Your task to perform on an android device: change your default location settings in chrome Image 0: 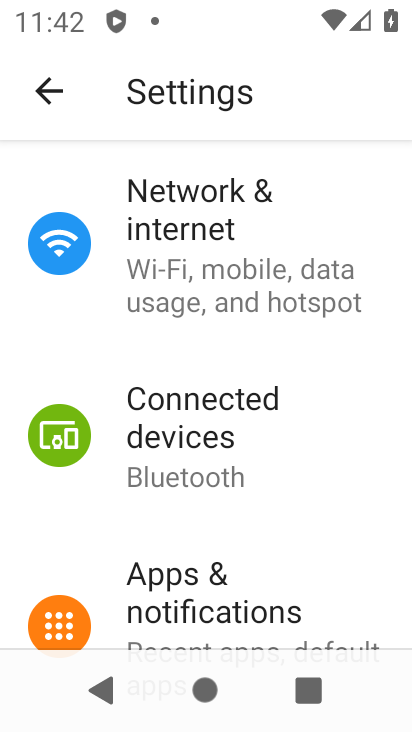
Step 0: press home button
Your task to perform on an android device: change your default location settings in chrome Image 1: 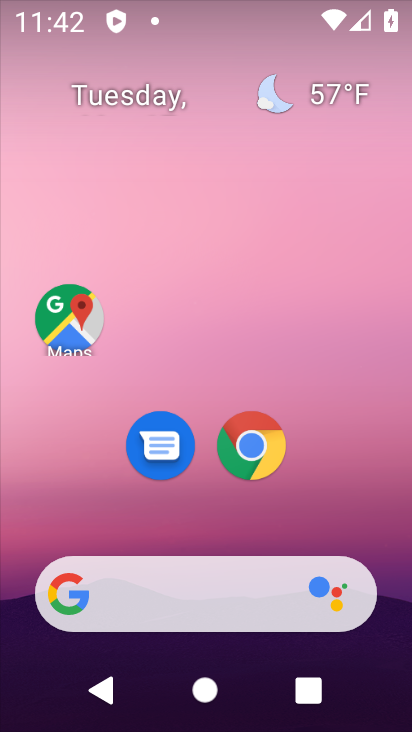
Step 1: drag from (366, 346) to (371, 134)
Your task to perform on an android device: change your default location settings in chrome Image 2: 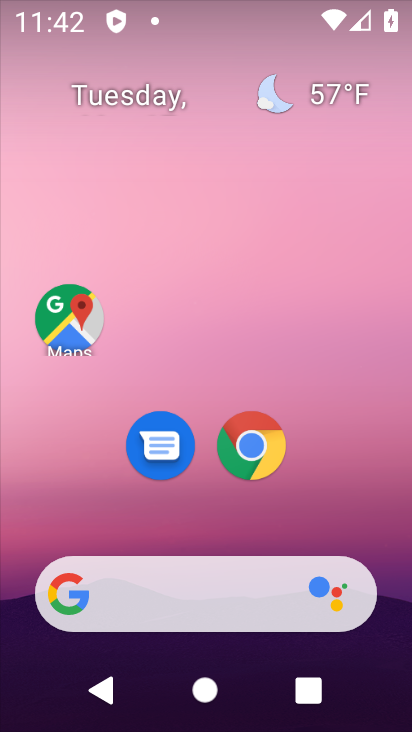
Step 2: drag from (368, 523) to (358, 111)
Your task to perform on an android device: change your default location settings in chrome Image 3: 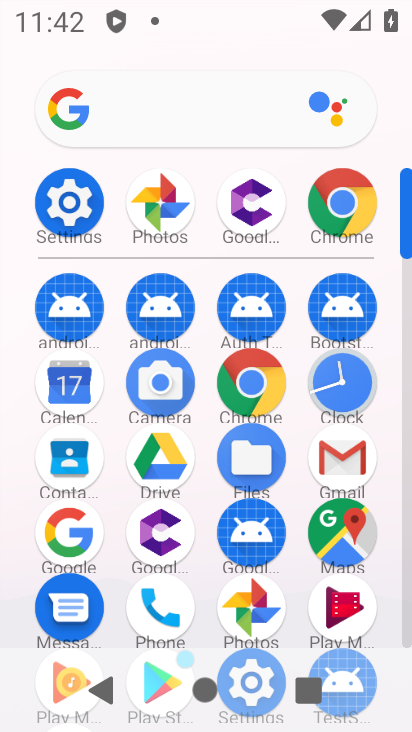
Step 3: click (358, 213)
Your task to perform on an android device: change your default location settings in chrome Image 4: 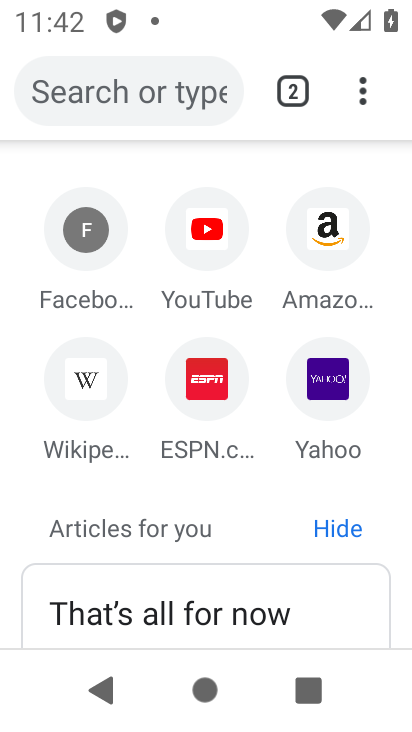
Step 4: click (362, 105)
Your task to perform on an android device: change your default location settings in chrome Image 5: 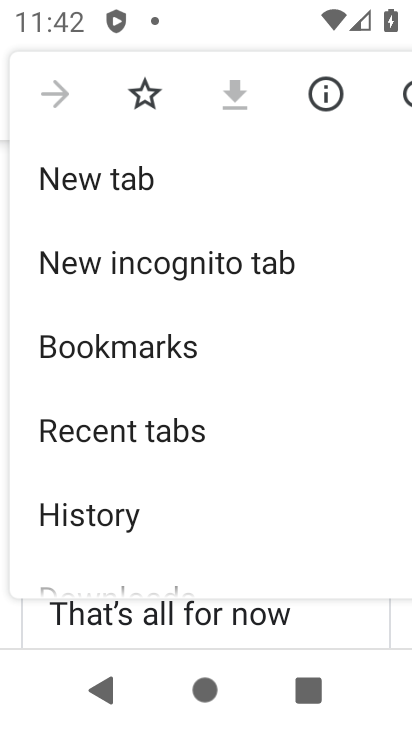
Step 5: drag from (326, 473) to (332, 286)
Your task to perform on an android device: change your default location settings in chrome Image 6: 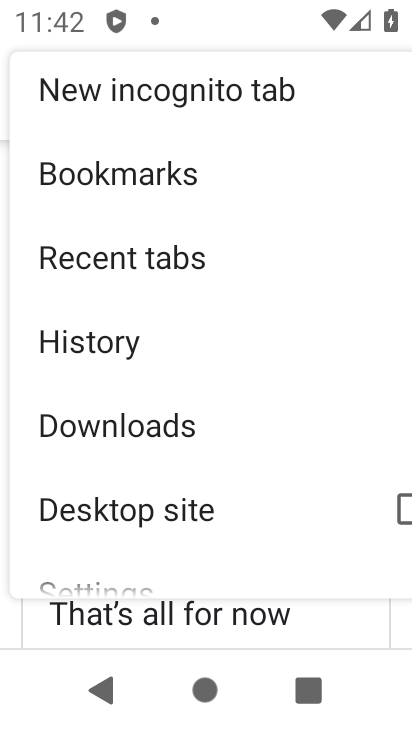
Step 6: drag from (307, 481) to (309, 344)
Your task to perform on an android device: change your default location settings in chrome Image 7: 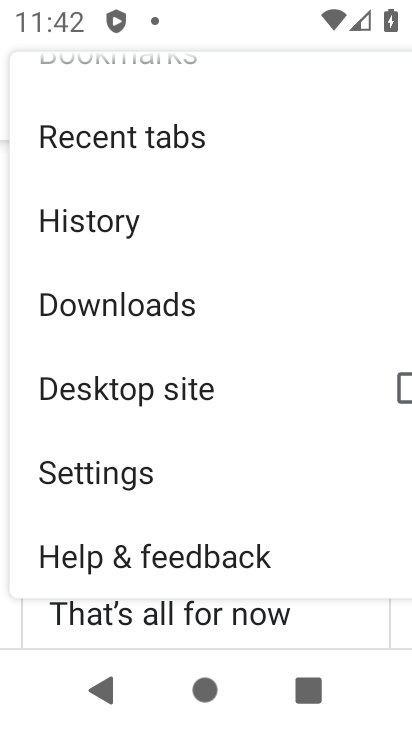
Step 7: drag from (294, 510) to (295, 290)
Your task to perform on an android device: change your default location settings in chrome Image 8: 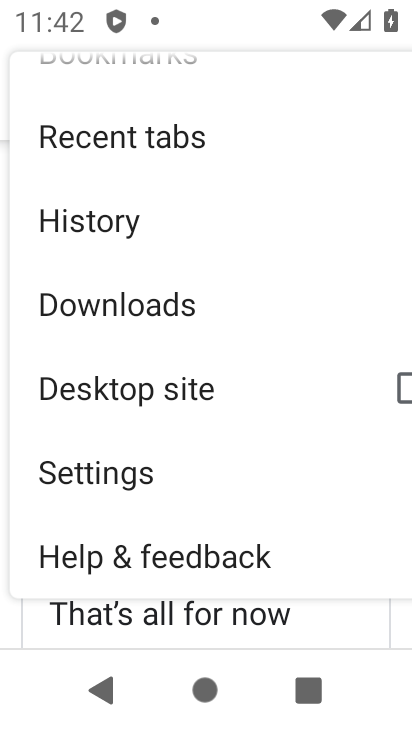
Step 8: click (158, 477)
Your task to perform on an android device: change your default location settings in chrome Image 9: 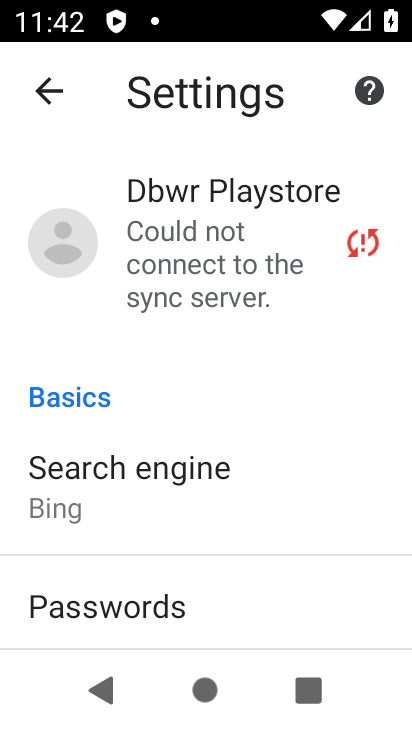
Step 9: drag from (290, 551) to (315, 443)
Your task to perform on an android device: change your default location settings in chrome Image 10: 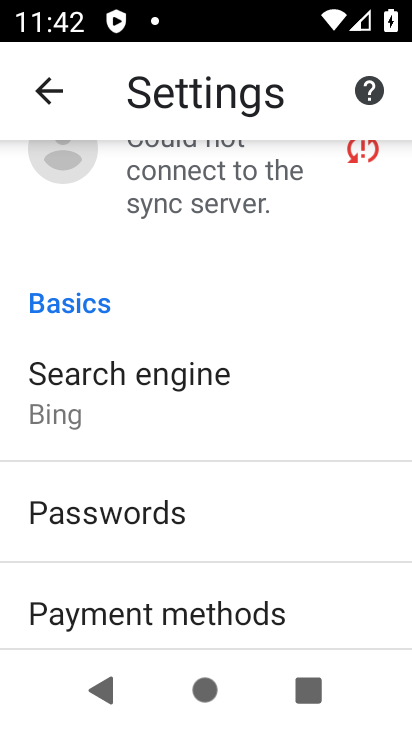
Step 10: drag from (334, 579) to (336, 434)
Your task to perform on an android device: change your default location settings in chrome Image 11: 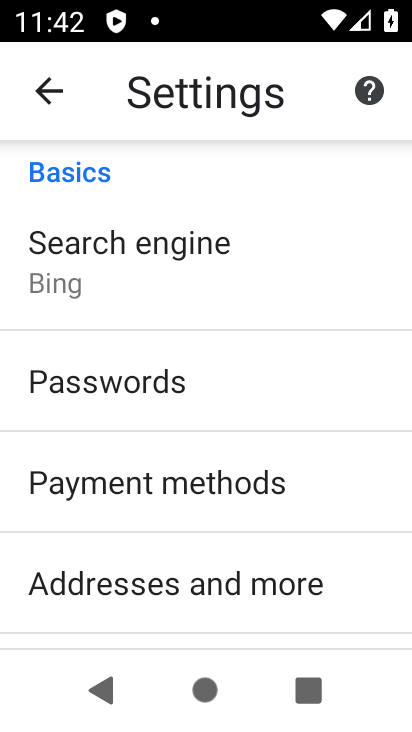
Step 11: drag from (325, 579) to (322, 425)
Your task to perform on an android device: change your default location settings in chrome Image 12: 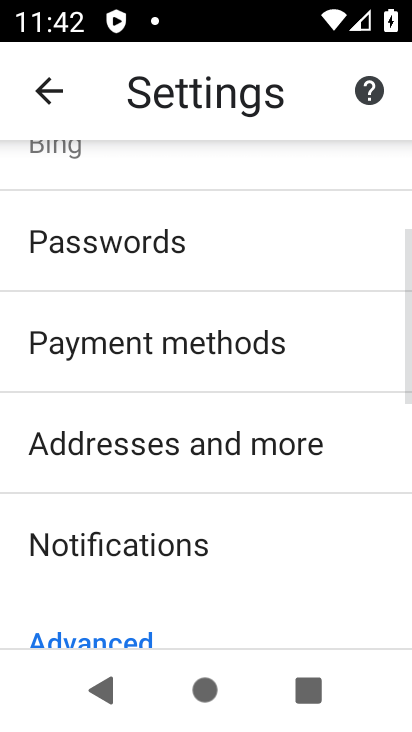
Step 12: drag from (340, 581) to (351, 447)
Your task to perform on an android device: change your default location settings in chrome Image 13: 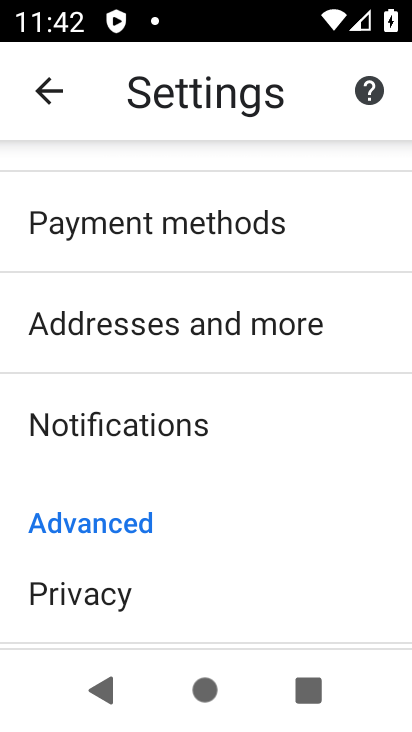
Step 13: drag from (344, 568) to (337, 450)
Your task to perform on an android device: change your default location settings in chrome Image 14: 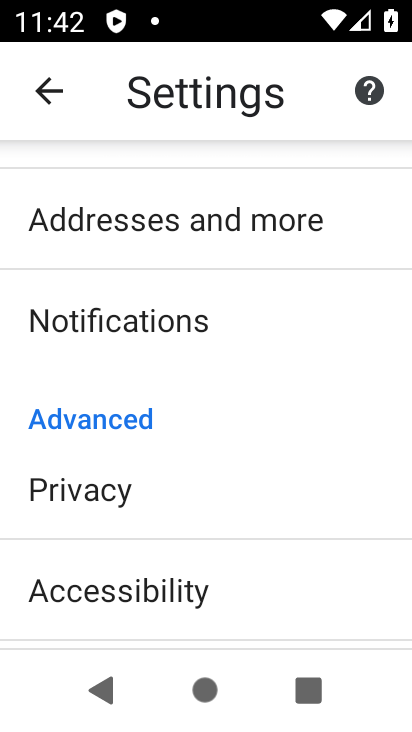
Step 14: drag from (319, 542) to (307, 341)
Your task to perform on an android device: change your default location settings in chrome Image 15: 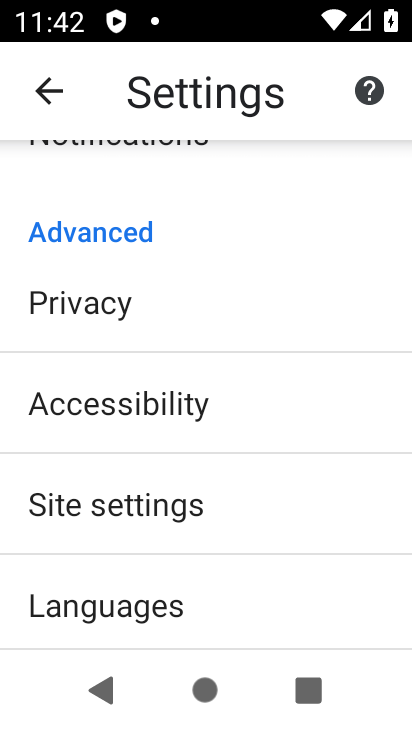
Step 15: drag from (284, 528) to (288, 359)
Your task to perform on an android device: change your default location settings in chrome Image 16: 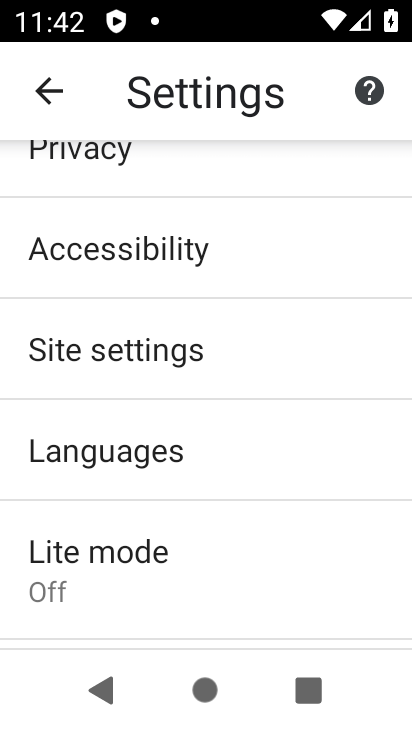
Step 16: click (226, 360)
Your task to perform on an android device: change your default location settings in chrome Image 17: 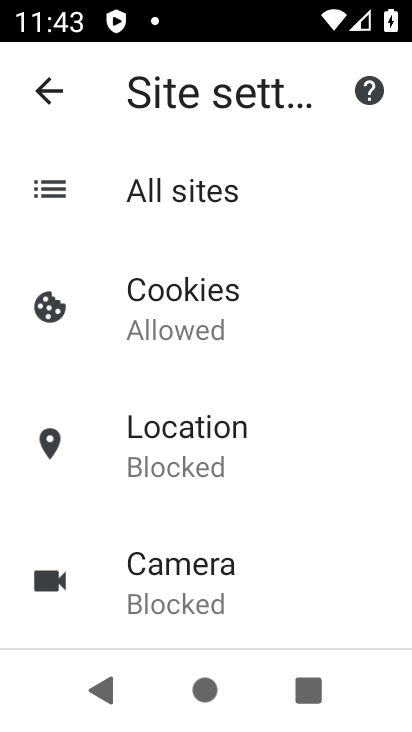
Step 17: drag from (276, 571) to (288, 360)
Your task to perform on an android device: change your default location settings in chrome Image 18: 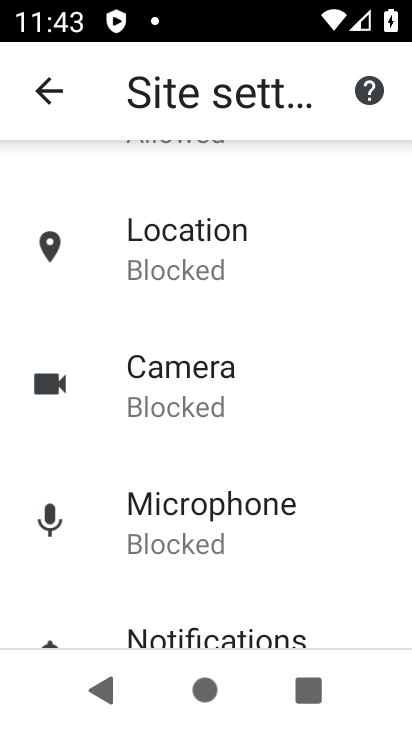
Step 18: drag from (315, 574) to (322, 351)
Your task to perform on an android device: change your default location settings in chrome Image 19: 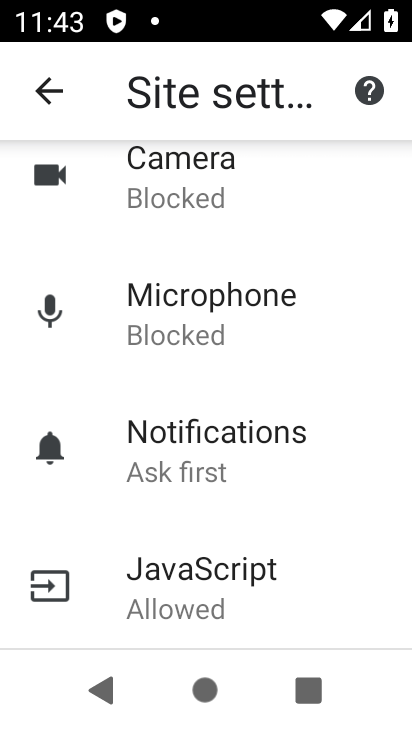
Step 19: drag from (323, 581) to (341, 391)
Your task to perform on an android device: change your default location settings in chrome Image 20: 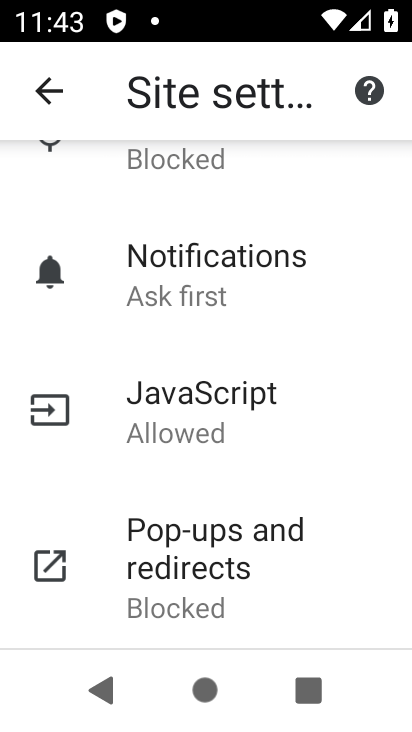
Step 20: drag from (321, 611) to (335, 434)
Your task to perform on an android device: change your default location settings in chrome Image 21: 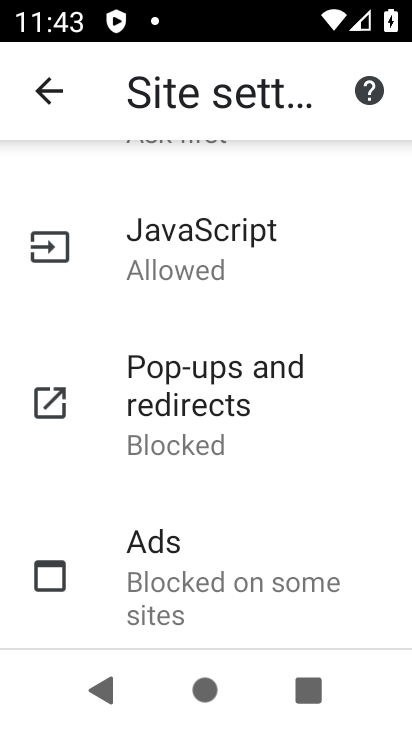
Step 21: drag from (333, 322) to (339, 489)
Your task to perform on an android device: change your default location settings in chrome Image 22: 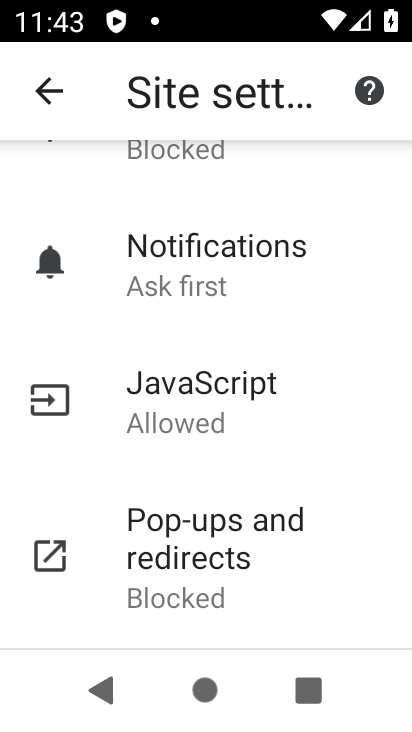
Step 22: drag from (324, 296) to (326, 493)
Your task to perform on an android device: change your default location settings in chrome Image 23: 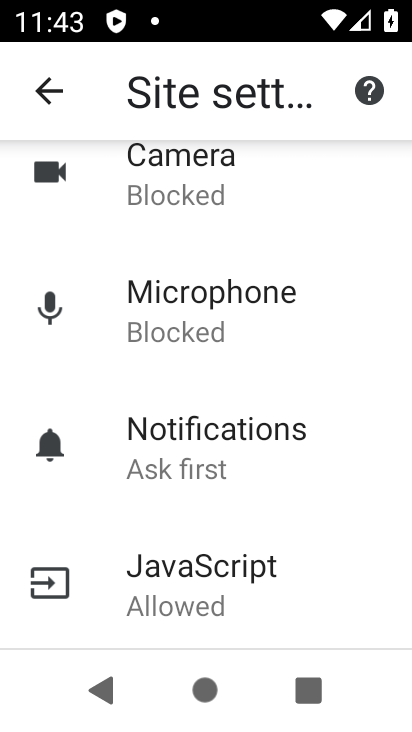
Step 23: drag from (351, 270) to (332, 515)
Your task to perform on an android device: change your default location settings in chrome Image 24: 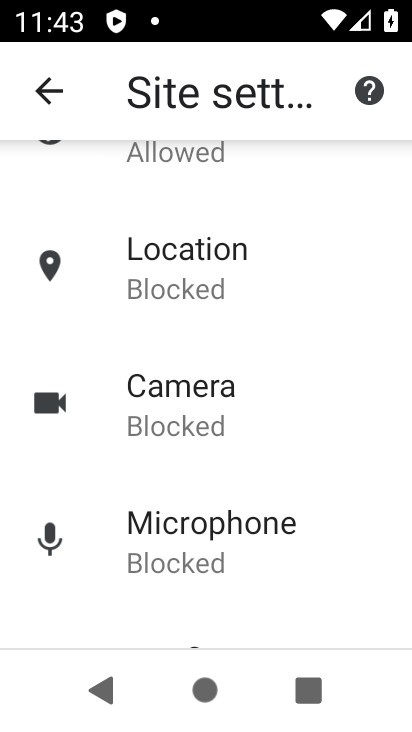
Step 24: click (231, 255)
Your task to perform on an android device: change your default location settings in chrome Image 25: 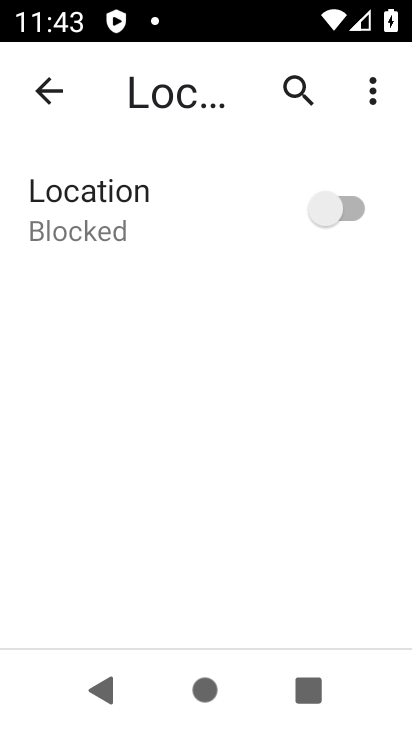
Step 25: click (343, 198)
Your task to perform on an android device: change your default location settings in chrome Image 26: 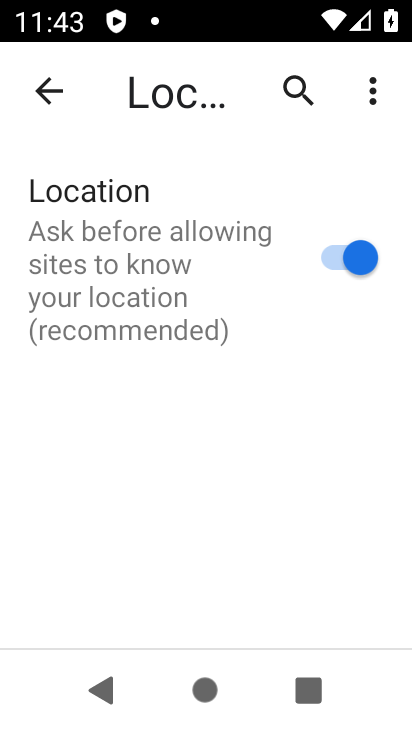
Step 26: task complete